Your task to perform on an android device: open app "Mercado Libre" (install if not already installed) Image 0: 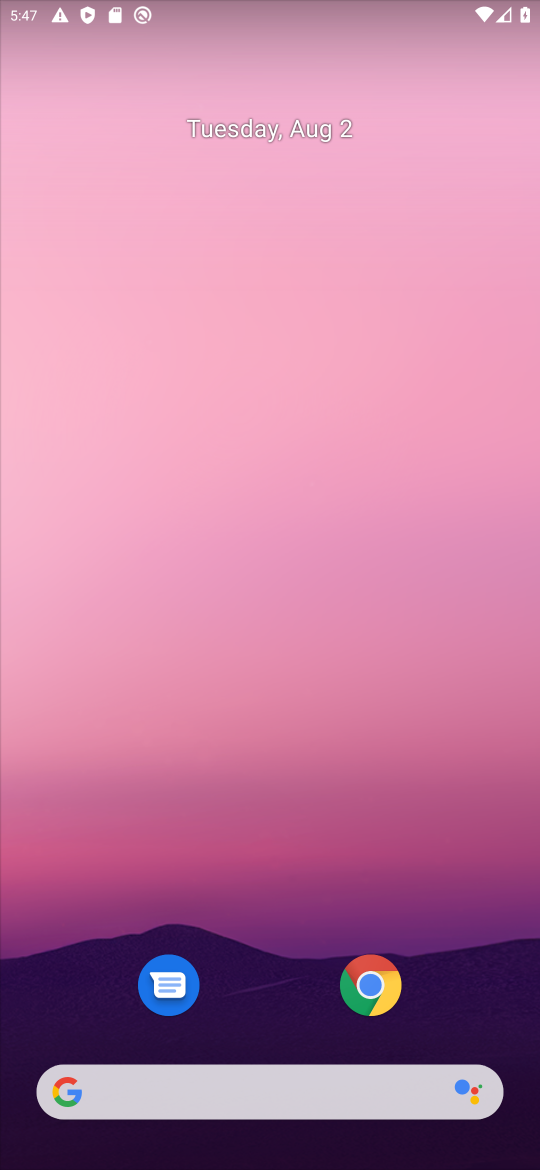
Step 0: drag from (260, 927) to (208, 138)
Your task to perform on an android device: open app "Mercado Libre" (install if not already installed) Image 1: 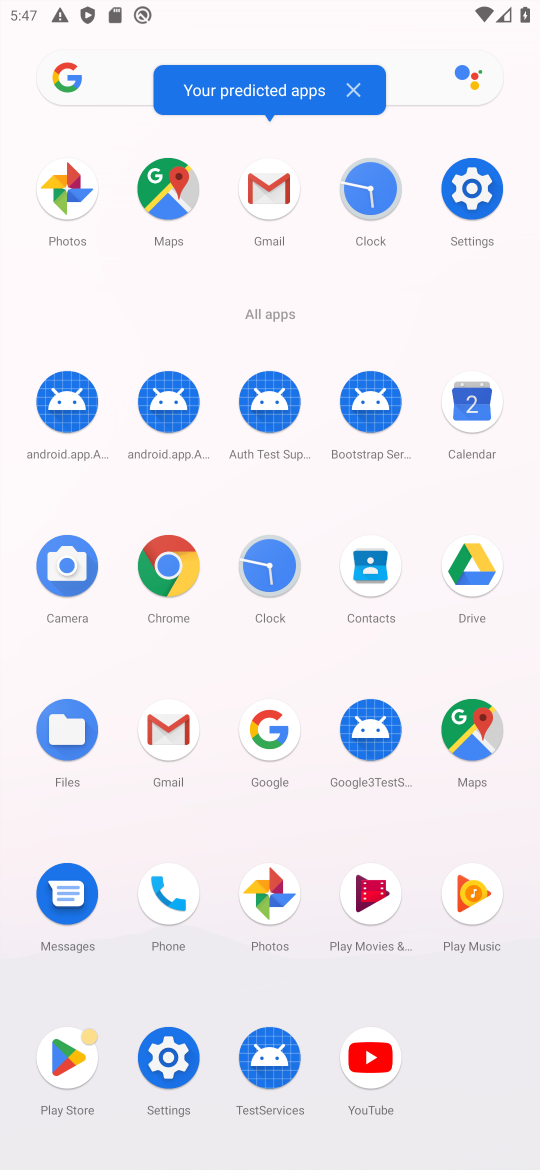
Step 1: click (63, 1067)
Your task to perform on an android device: open app "Mercado Libre" (install if not already installed) Image 2: 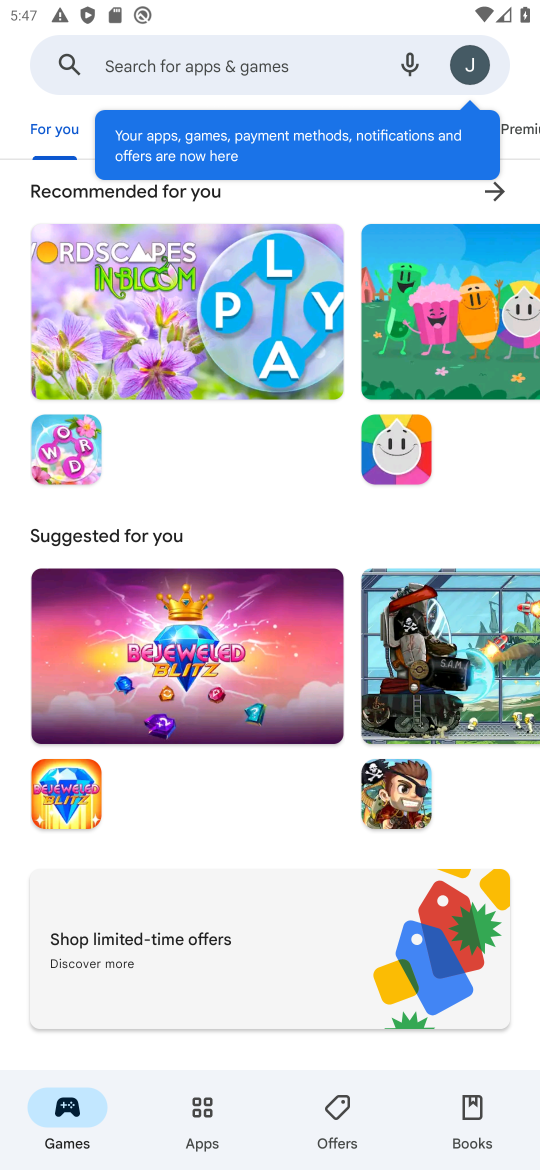
Step 2: click (289, 54)
Your task to perform on an android device: open app "Mercado Libre" (install if not already installed) Image 3: 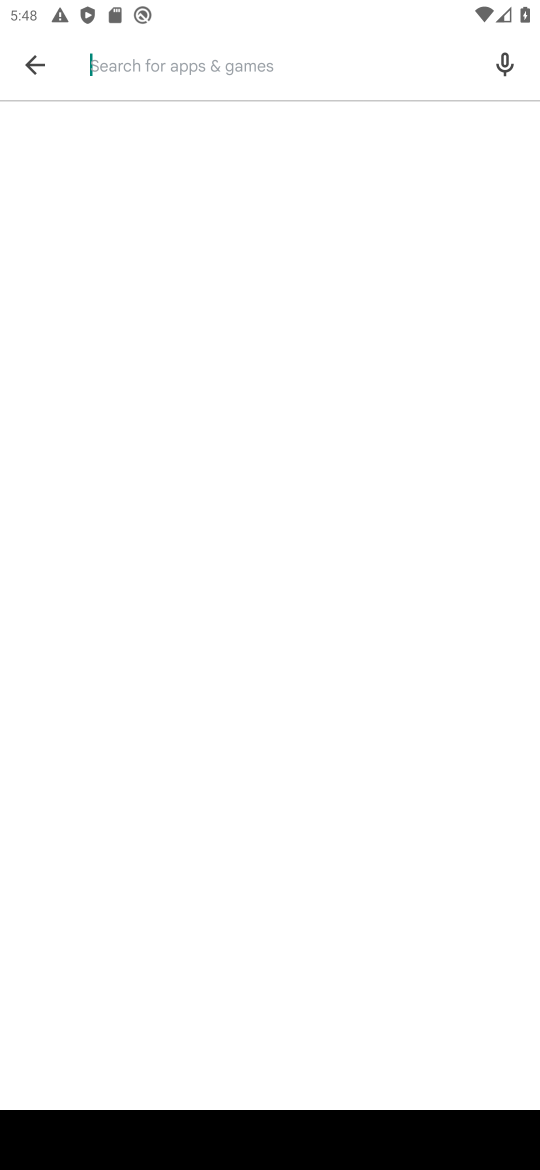
Step 3: type "Mercado Libre"
Your task to perform on an android device: open app "Mercado Libre" (install if not already installed) Image 4: 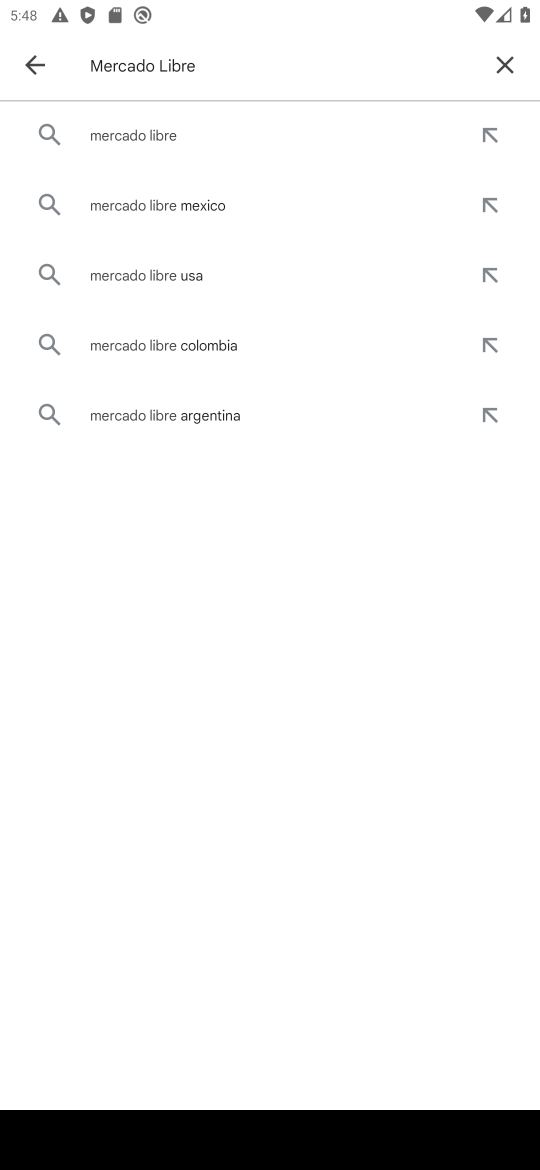
Step 4: click (232, 137)
Your task to perform on an android device: open app "Mercado Libre" (install if not already installed) Image 5: 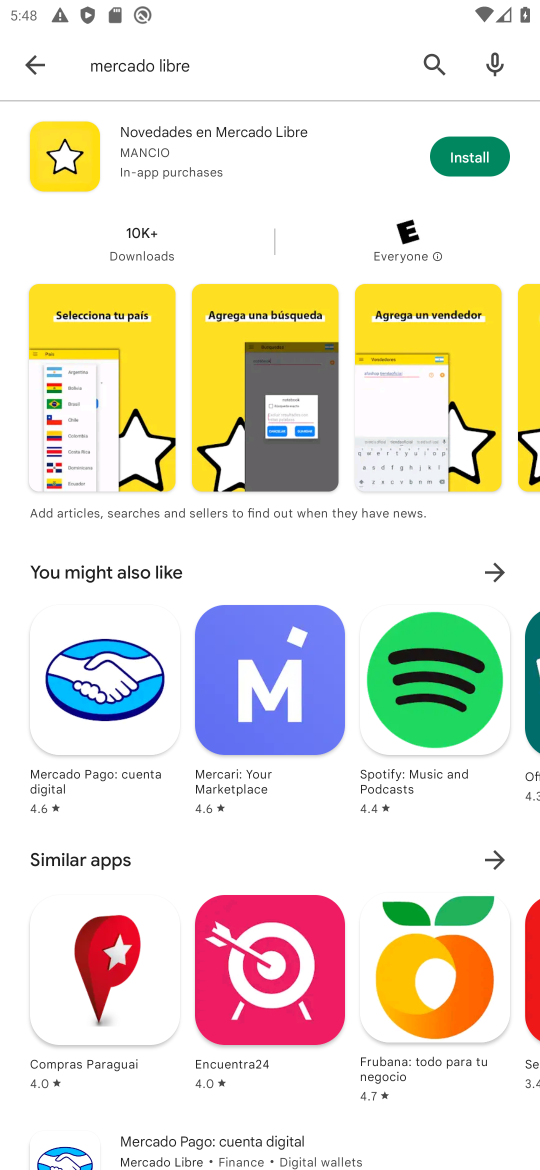
Step 5: task complete